Your task to perform on an android device: Go to display settings Image 0: 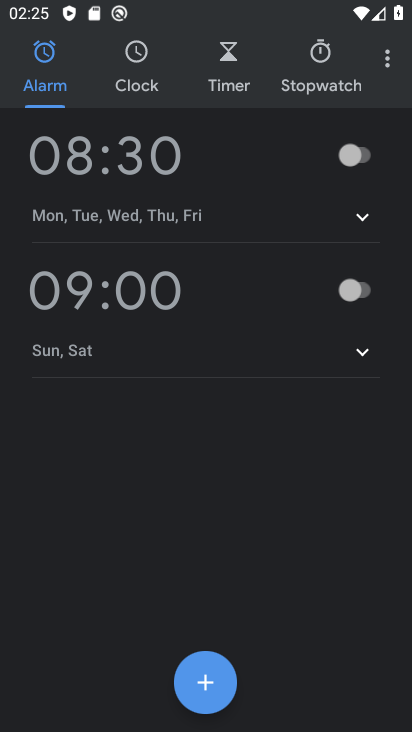
Step 0: press home button
Your task to perform on an android device: Go to display settings Image 1: 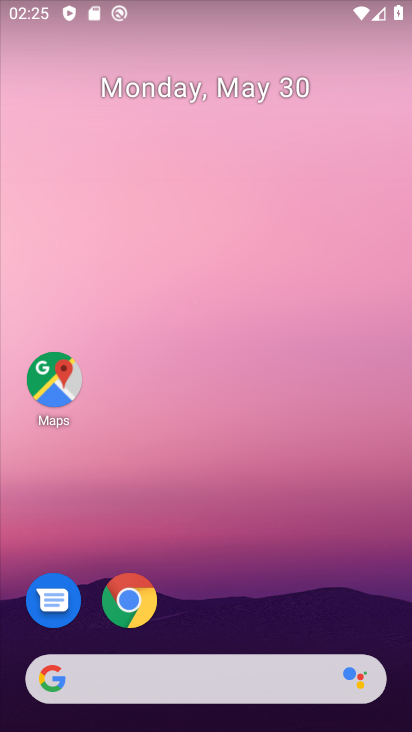
Step 1: drag from (280, 622) to (270, 108)
Your task to perform on an android device: Go to display settings Image 2: 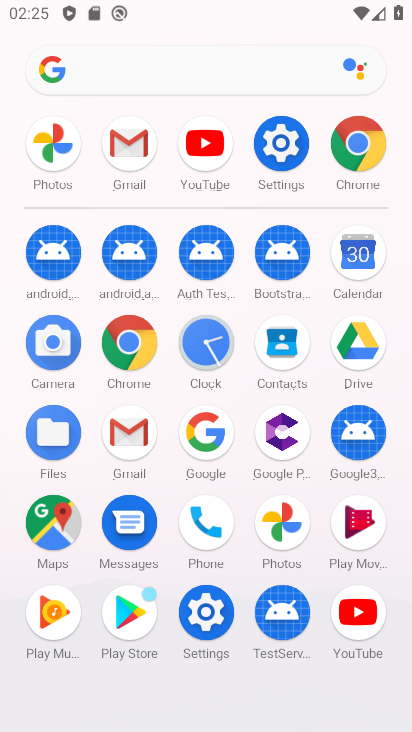
Step 2: click (279, 141)
Your task to perform on an android device: Go to display settings Image 3: 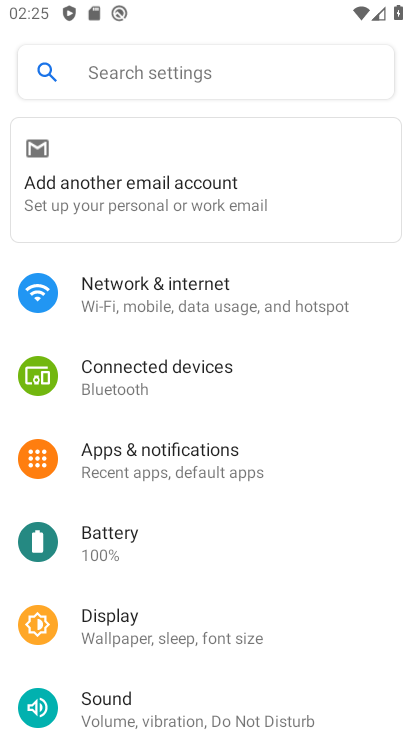
Step 3: click (142, 624)
Your task to perform on an android device: Go to display settings Image 4: 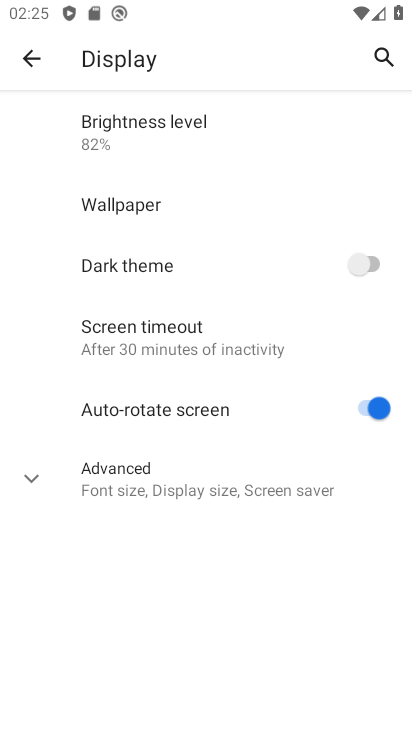
Step 4: task complete